Your task to perform on an android device: Open internet settings Image 0: 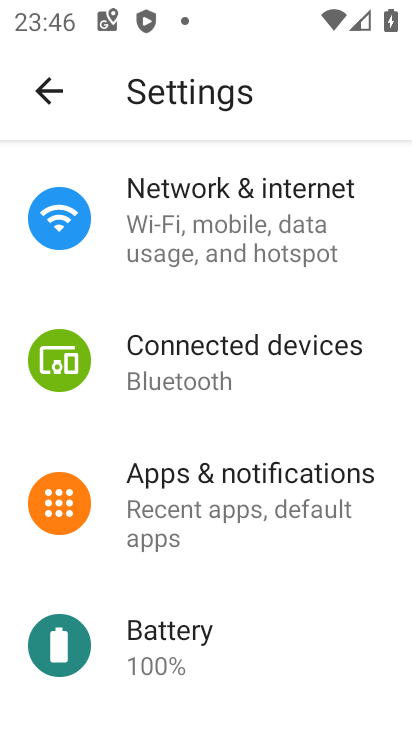
Step 0: click (293, 273)
Your task to perform on an android device: Open internet settings Image 1: 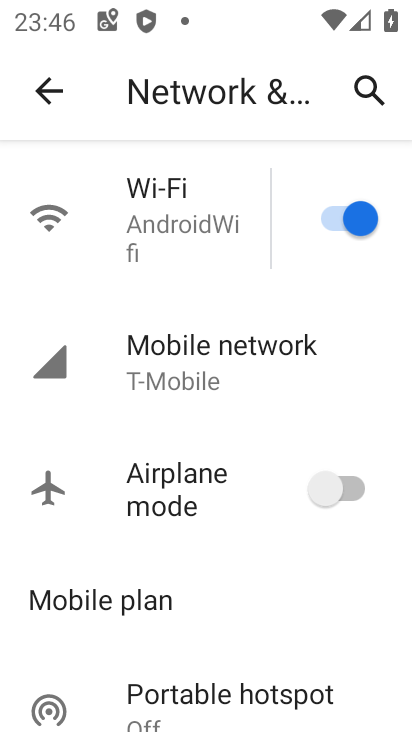
Step 1: task complete